Your task to perform on an android device: Go to Maps Image 0: 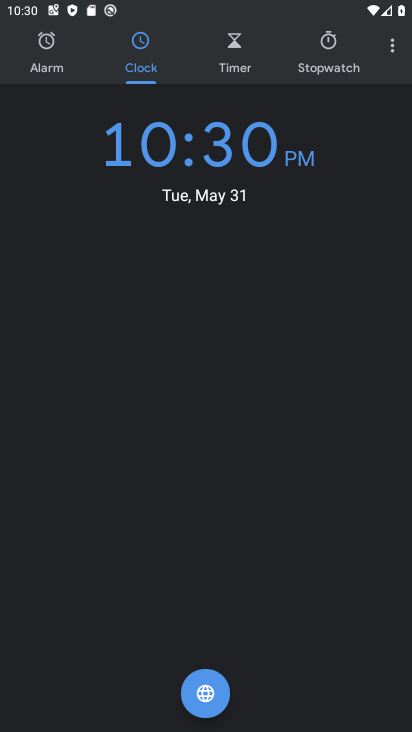
Step 0: press home button
Your task to perform on an android device: Go to Maps Image 1: 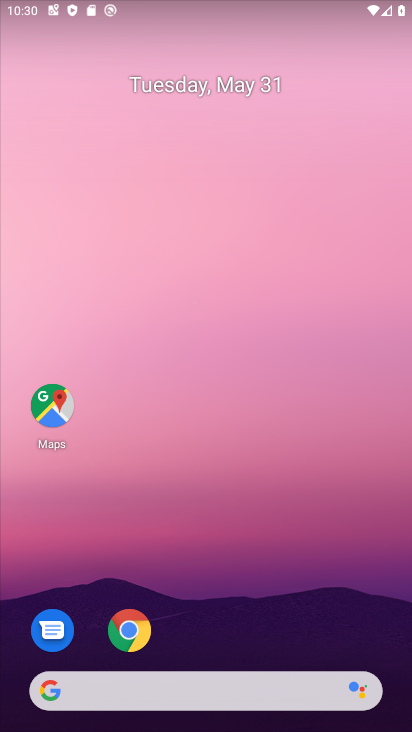
Step 1: click (58, 406)
Your task to perform on an android device: Go to Maps Image 2: 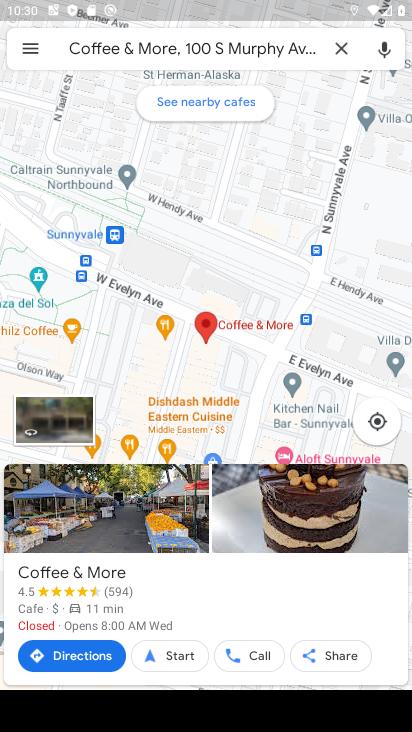
Step 2: click (342, 53)
Your task to perform on an android device: Go to Maps Image 3: 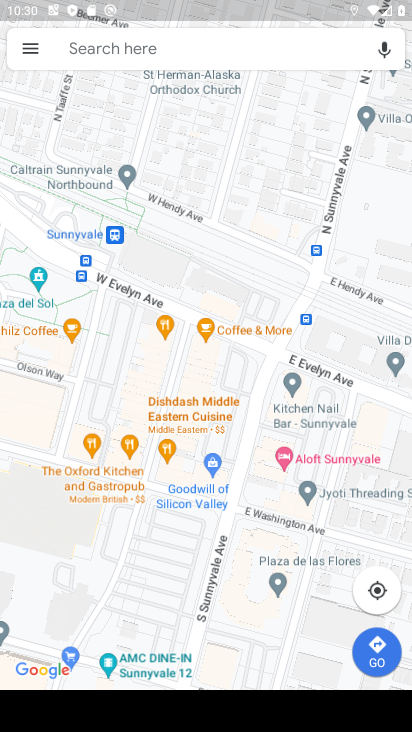
Step 3: task complete